Your task to perform on an android device: create a new album in the google photos Image 0: 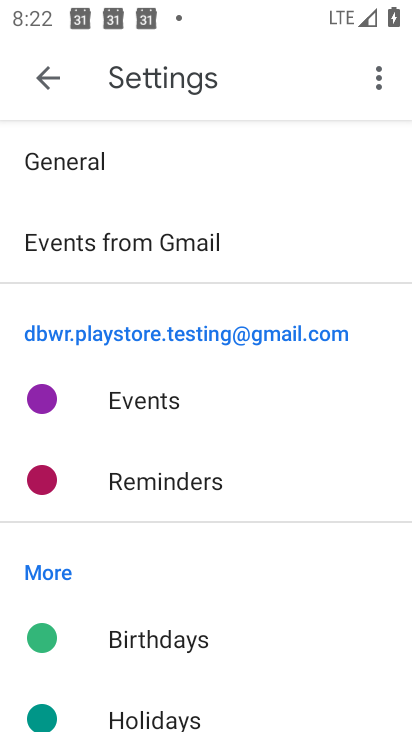
Step 0: press home button
Your task to perform on an android device: create a new album in the google photos Image 1: 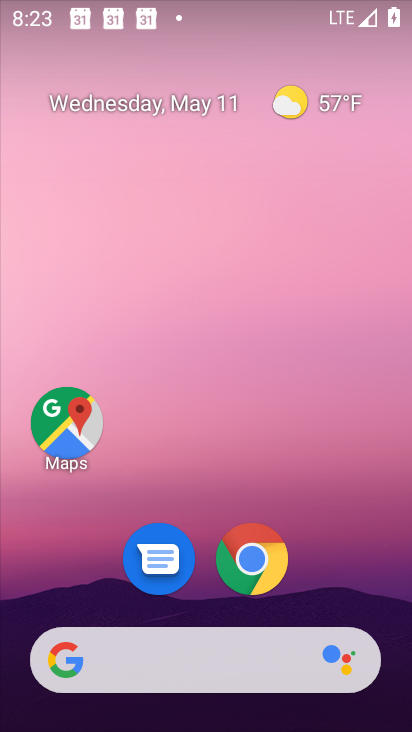
Step 1: press home button
Your task to perform on an android device: create a new album in the google photos Image 2: 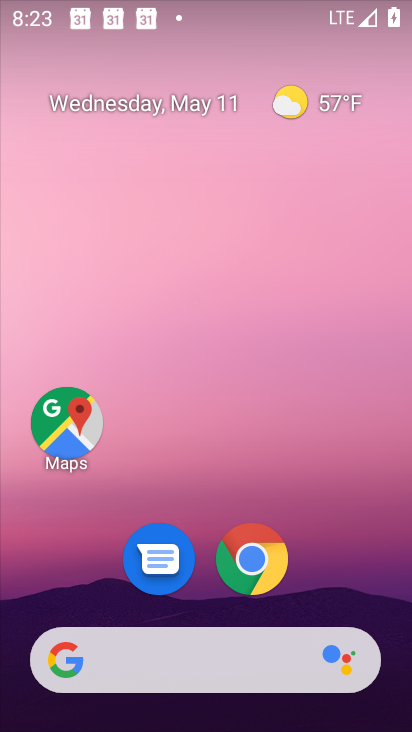
Step 2: drag from (365, 591) to (312, 146)
Your task to perform on an android device: create a new album in the google photos Image 3: 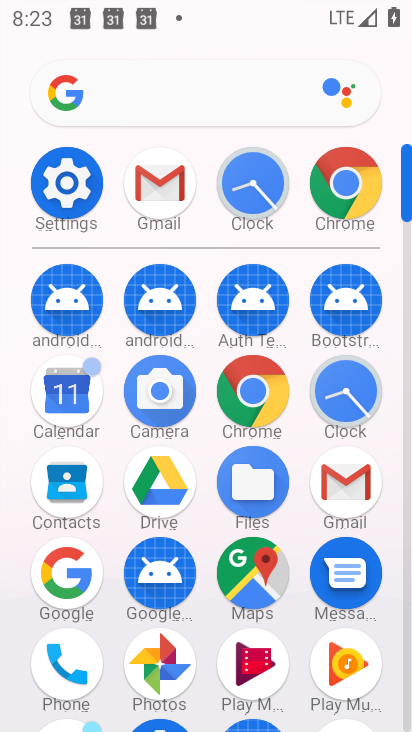
Step 3: click (399, 672)
Your task to perform on an android device: create a new album in the google photos Image 4: 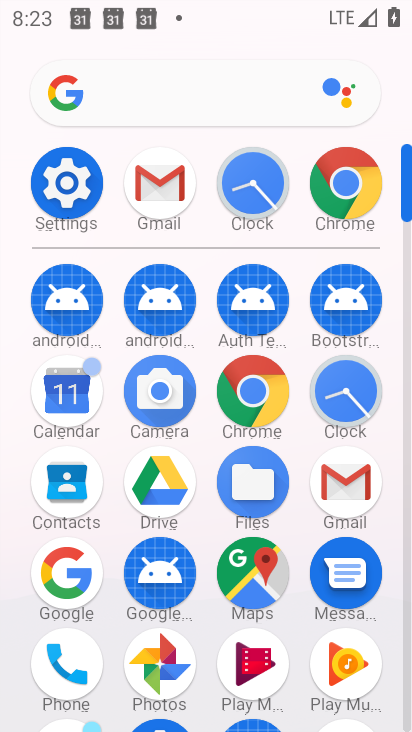
Step 4: click (404, 673)
Your task to perform on an android device: create a new album in the google photos Image 5: 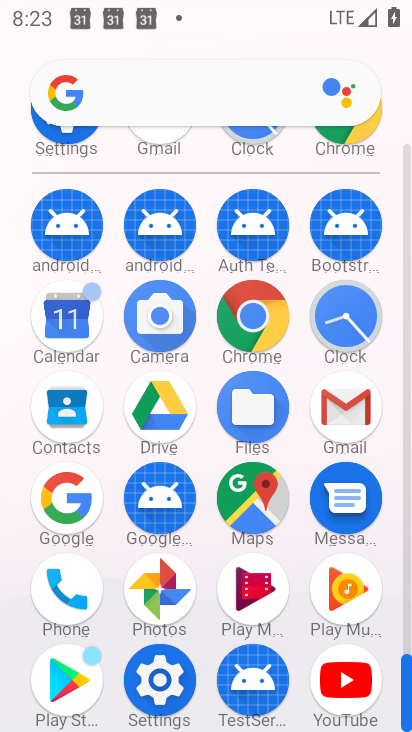
Step 5: click (173, 601)
Your task to perform on an android device: create a new album in the google photos Image 6: 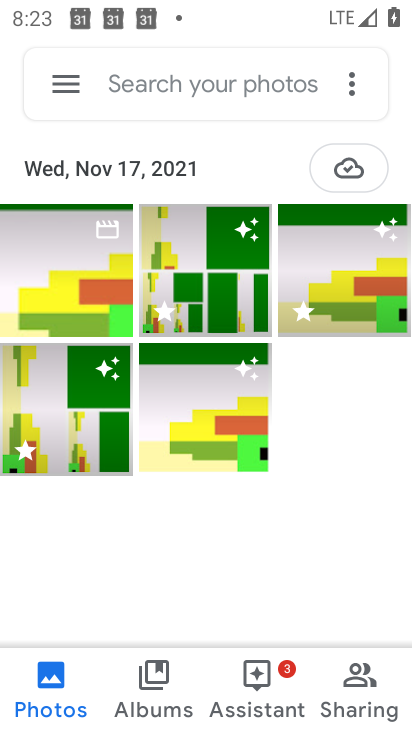
Step 6: click (61, 280)
Your task to perform on an android device: create a new album in the google photos Image 7: 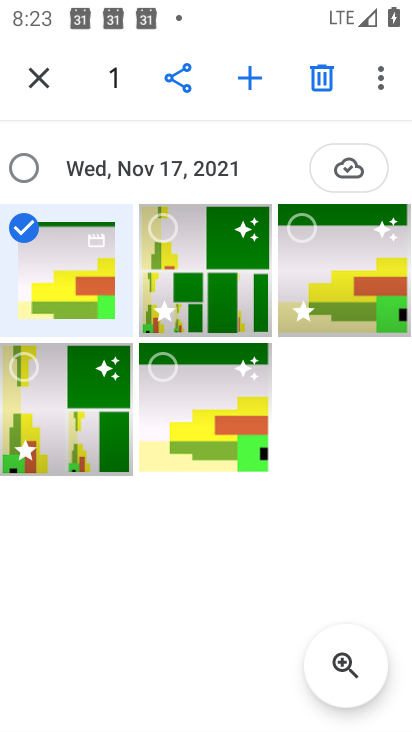
Step 7: click (247, 270)
Your task to perform on an android device: create a new album in the google photos Image 8: 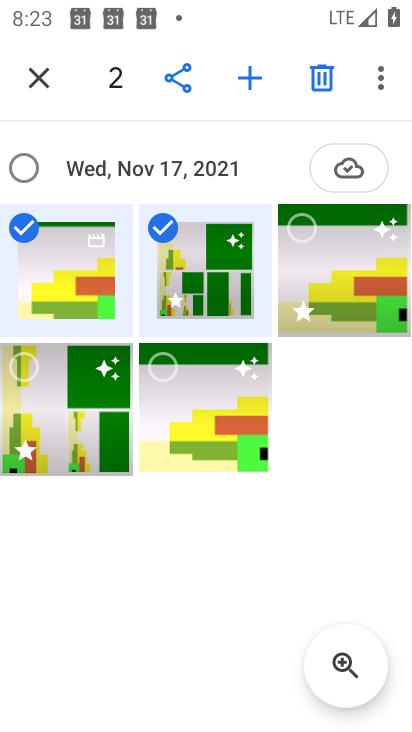
Step 8: click (253, 56)
Your task to perform on an android device: create a new album in the google photos Image 9: 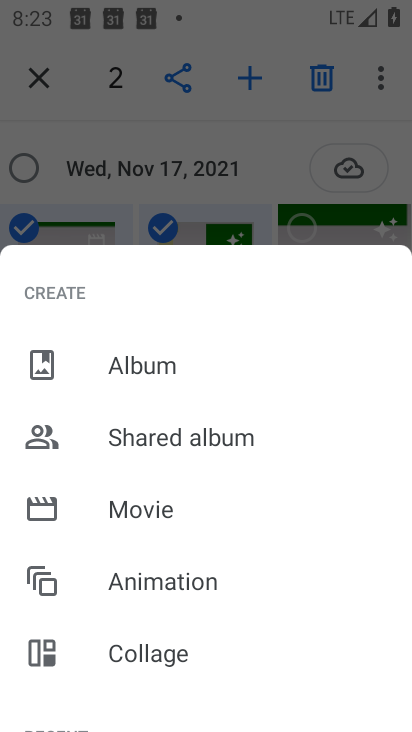
Step 9: click (136, 375)
Your task to perform on an android device: create a new album in the google photos Image 10: 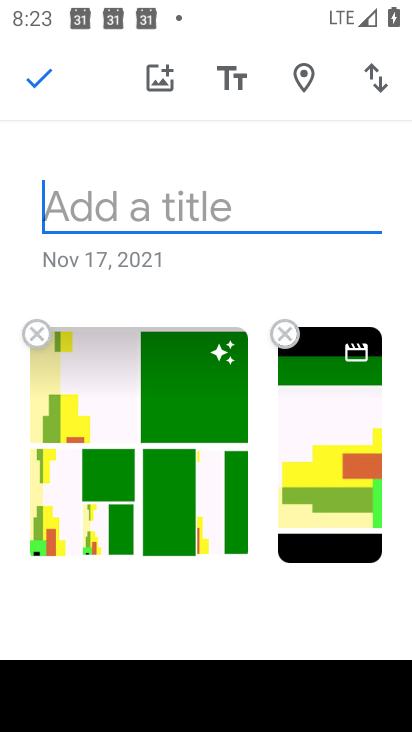
Step 10: type "assa"
Your task to perform on an android device: create a new album in the google photos Image 11: 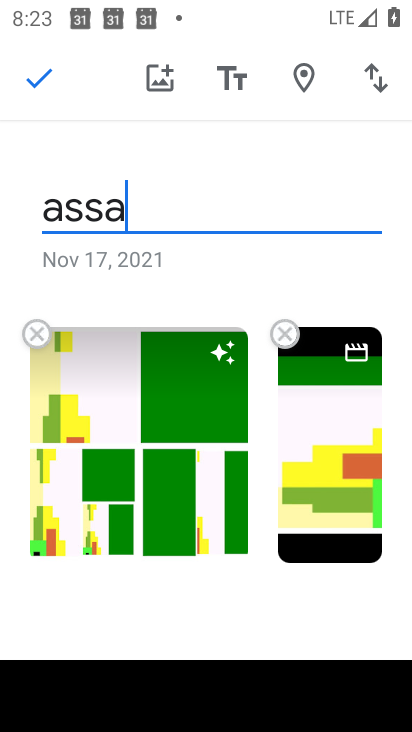
Step 11: click (26, 77)
Your task to perform on an android device: create a new album in the google photos Image 12: 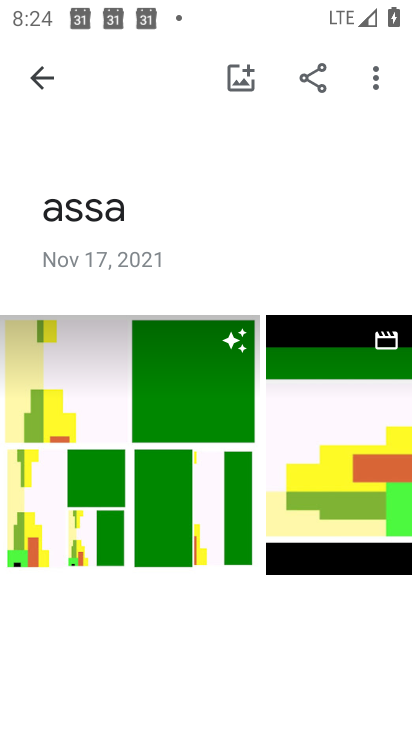
Step 12: task complete